Your task to perform on an android device: open the mobile data screen to see how much data has been used Image 0: 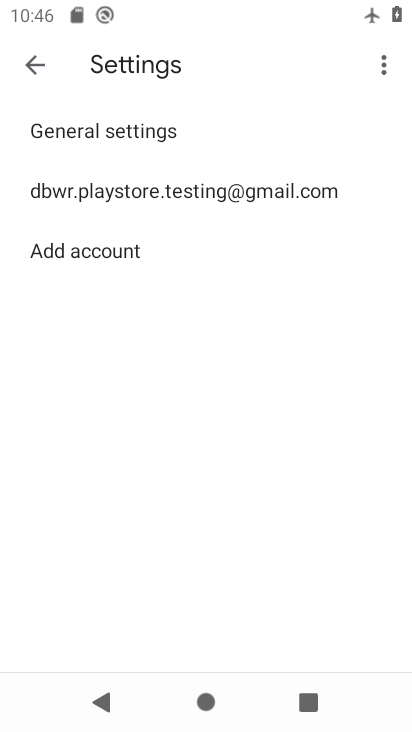
Step 0: press home button
Your task to perform on an android device: open the mobile data screen to see how much data has been used Image 1: 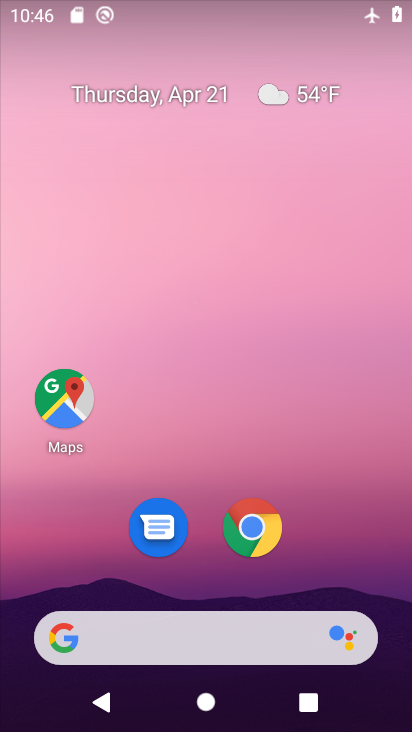
Step 1: drag from (359, 561) to (353, 288)
Your task to perform on an android device: open the mobile data screen to see how much data has been used Image 2: 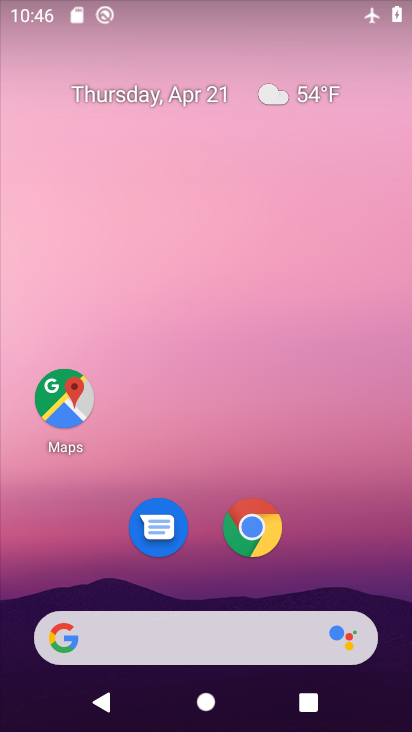
Step 2: drag from (336, 544) to (336, 177)
Your task to perform on an android device: open the mobile data screen to see how much data has been used Image 3: 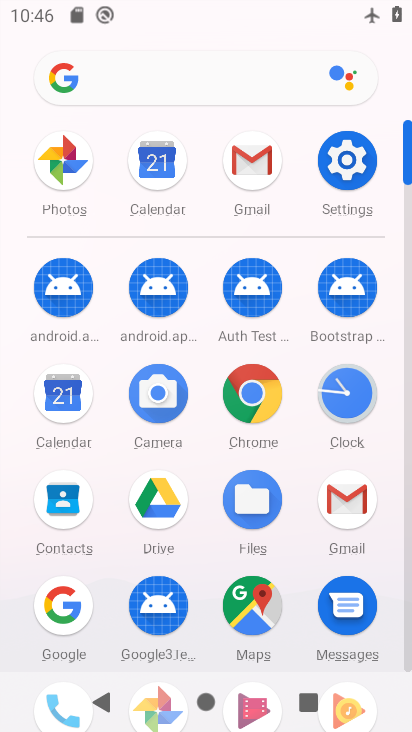
Step 3: click (345, 166)
Your task to perform on an android device: open the mobile data screen to see how much data has been used Image 4: 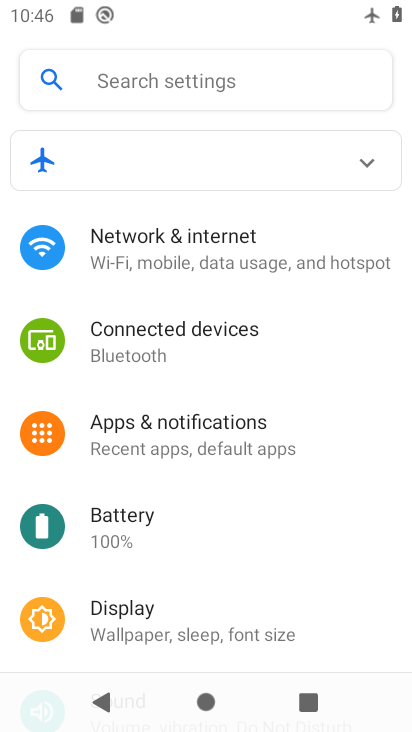
Step 4: click (240, 271)
Your task to perform on an android device: open the mobile data screen to see how much data has been used Image 5: 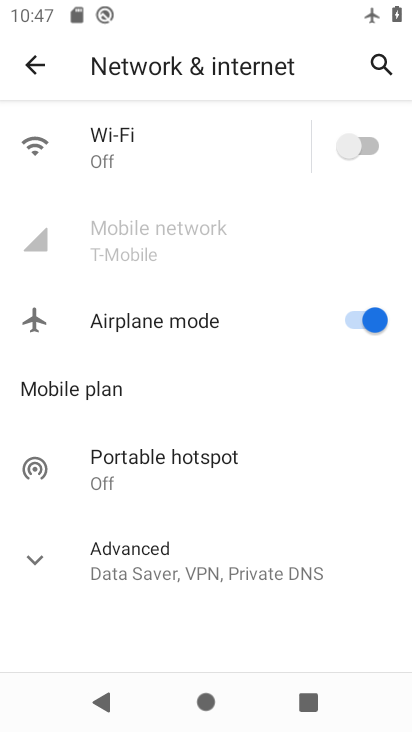
Step 5: click (387, 66)
Your task to perform on an android device: open the mobile data screen to see how much data has been used Image 6: 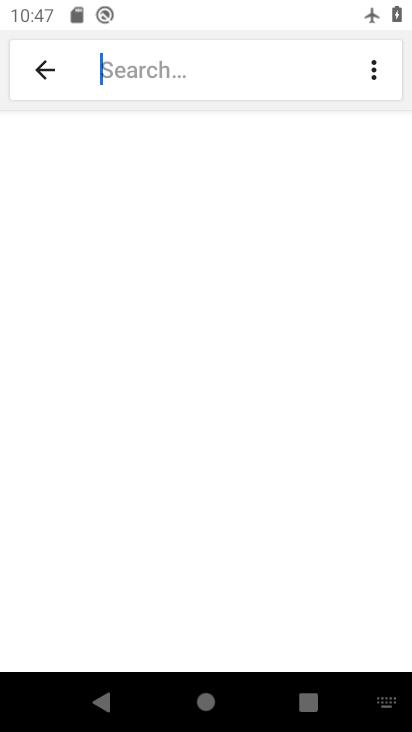
Step 6: click (254, 69)
Your task to perform on an android device: open the mobile data screen to see how much data has been used Image 7: 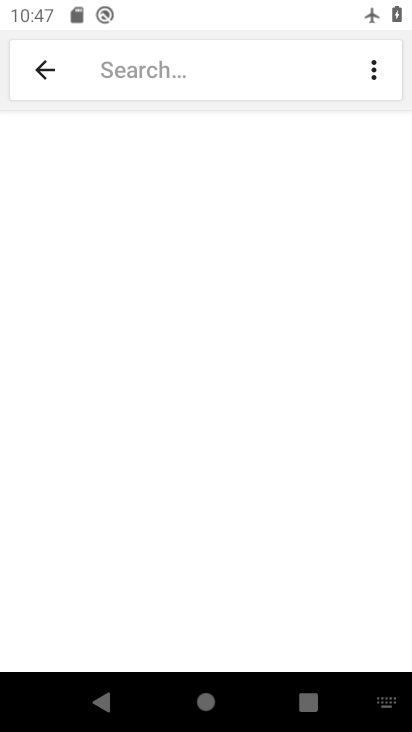
Step 7: type "mobile data  usage"
Your task to perform on an android device: open the mobile data screen to see how much data has been used Image 8: 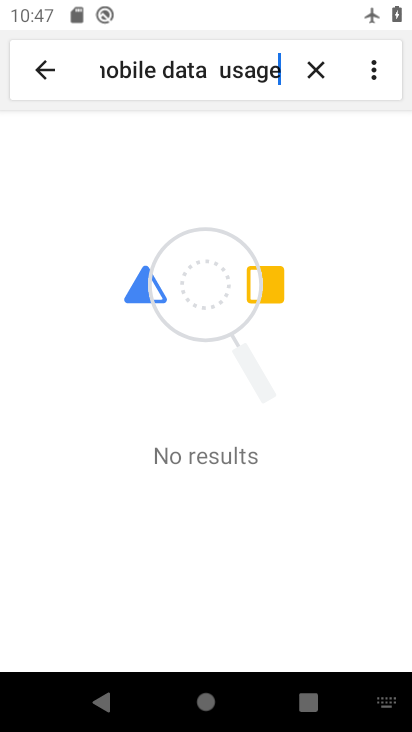
Step 8: click (312, 69)
Your task to perform on an android device: open the mobile data screen to see how much data has been used Image 9: 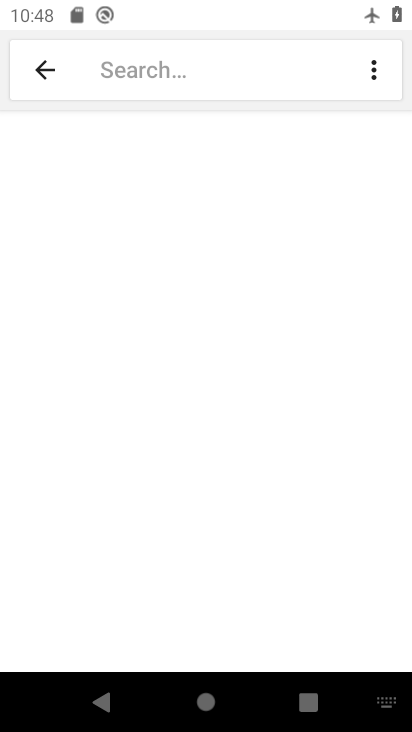
Step 9: type "data usage"
Your task to perform on an android device: open the mobile data screen to see how much data has been used Image 10: 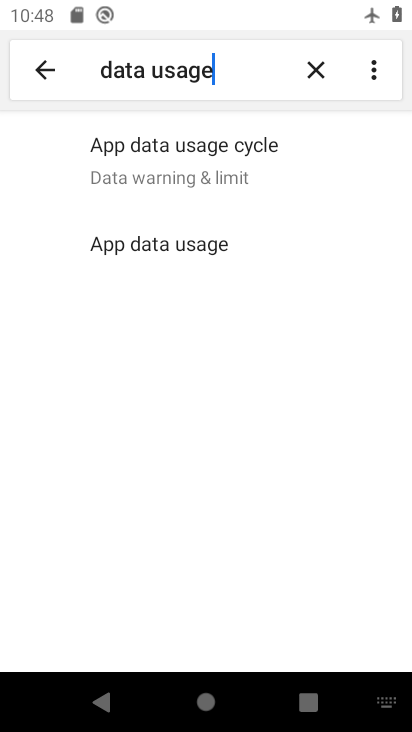
Step 10: click (161, 248)
Your task to perform on an android device: open the mobile data screen to see how much data has been used Image 11: 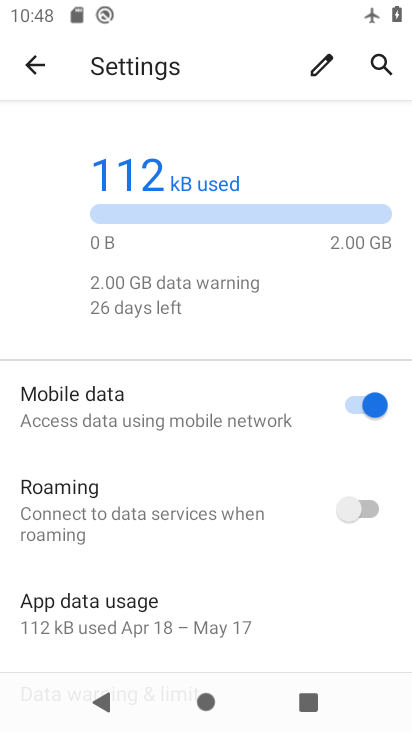
Step 11: click (124, 619)
Your task to perform on an android device: open the mobile data screen to see how much data has been used Image 12: 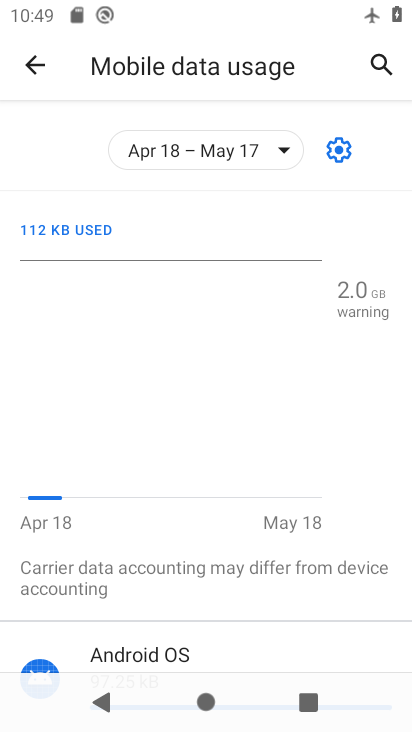
Step 12: task complete